Your task to perform on an android device: Open Android settings Image 0: 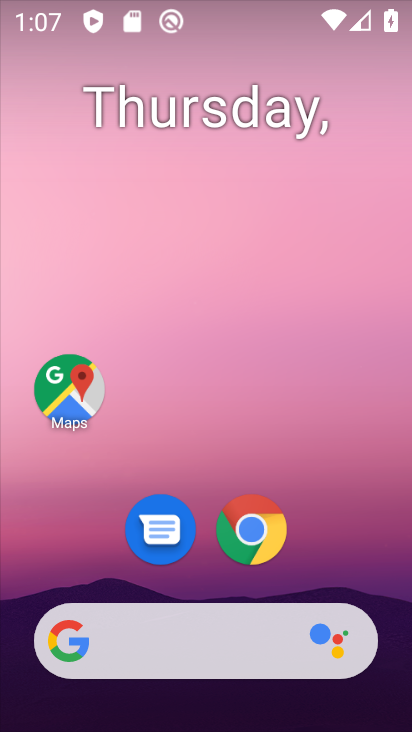
Step 0: drag from (215, 724) to (215, 34)
Your task to perform on an android device: Open Android settings Image 1: 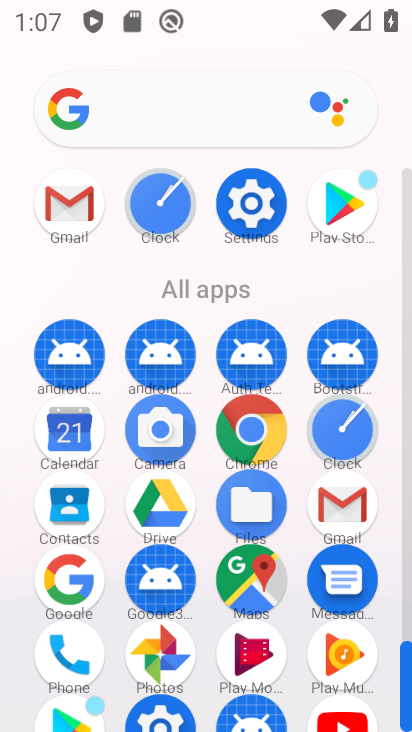
Step 1: click (253, 206)
Your task to perform on an android device: Open Android settings Image 2: 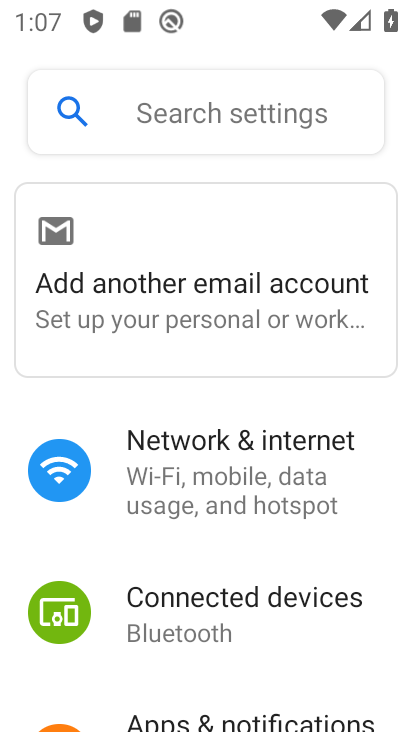
Step 2: task complete